Your task to perform on an android device: Toggle the flashlight Image 0: 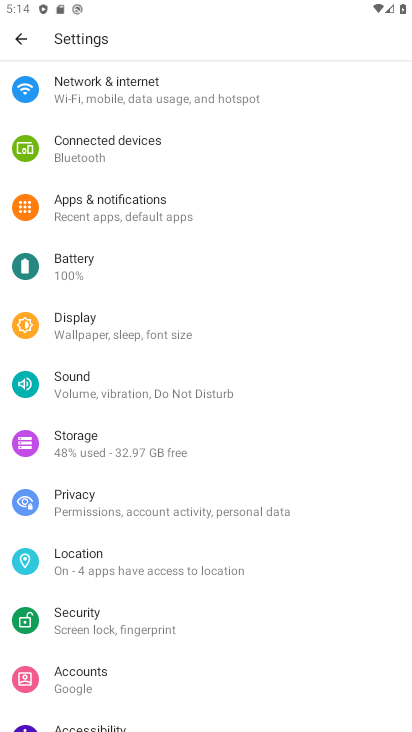
Step 0: task impossible